Your task to perform on an android device: Open eBay Image 0: 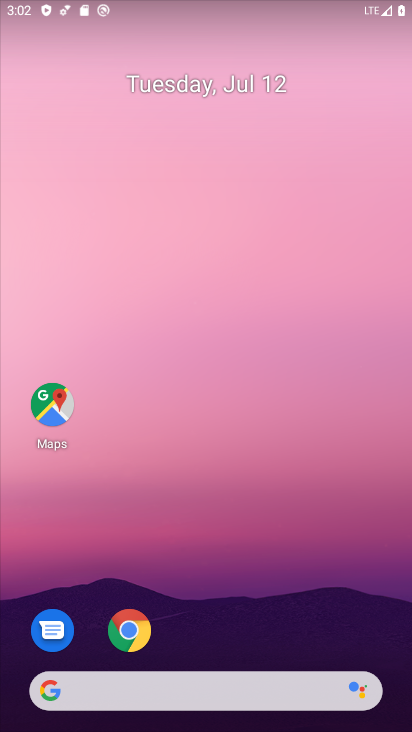
Step 0: drag from (266, 686) to (258, 43)
Your task to perform on an android device: Open eBay Image 1: 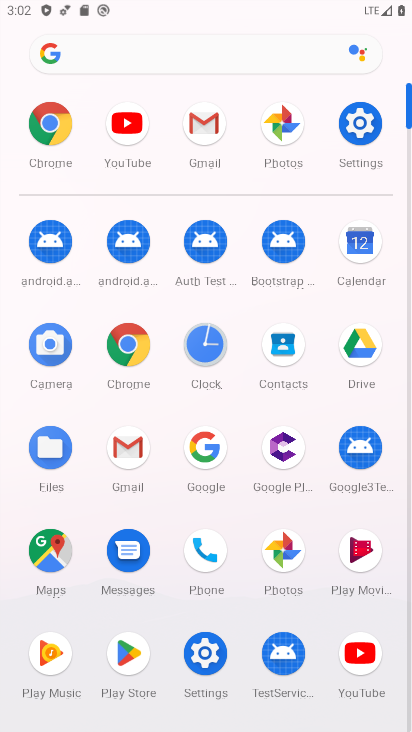
Step 1: click (131, 343)
Your task to perform on an android device: Open eBay Image 2: 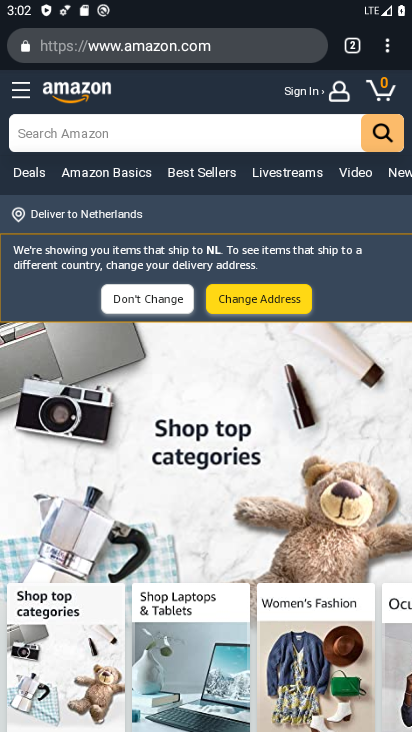
Step 2: drag from (389, 55) to (321, 70)
Your task to perform on an android device: Open eBay Image 3: 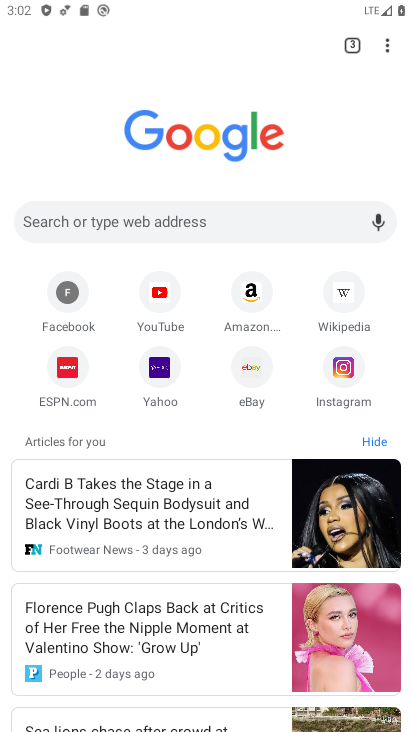
Step 3: click (248, 367)
Your task to perform on an android device: Open eBay Image 4: 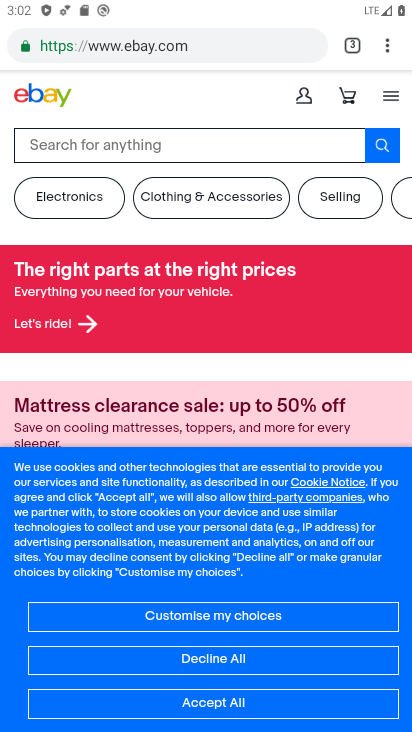
Step 4: task complete